Your task to perform on an android device: open sync settings in chrome Image 0: 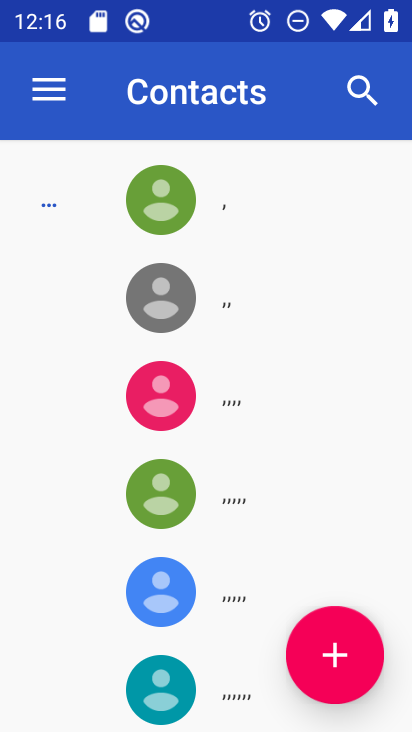
Step 0: press home button
Your task to perform on an android device: open sync settings in chrome Image 1: 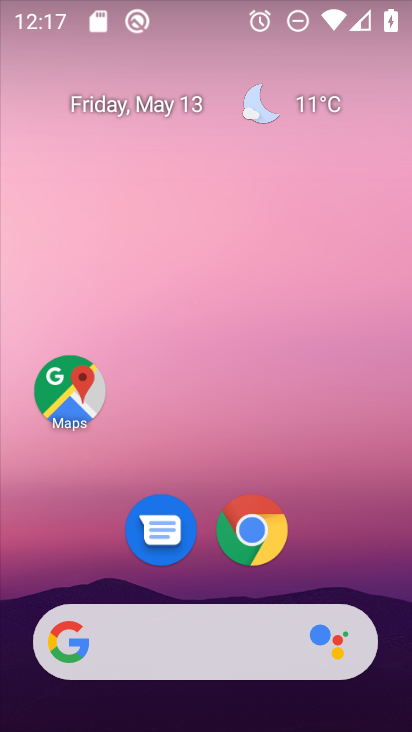
Step 1: click (226, 544)
Your task to perform on an android device: open sync settings in chrome Image 2: 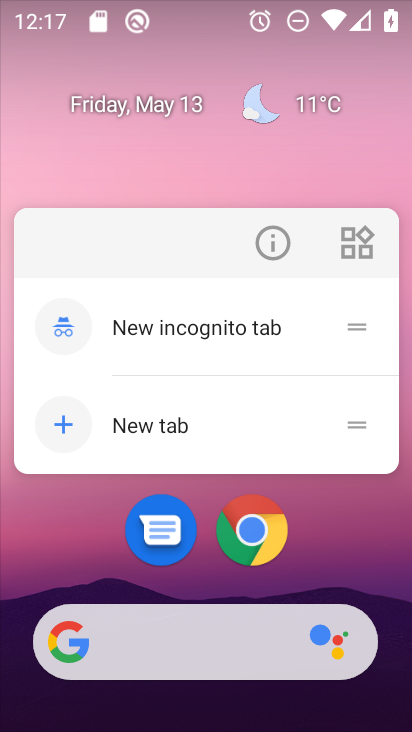
Step 2: click (241, 531)
Your task to perform on an android device: open sync settings in chrome Image 3: 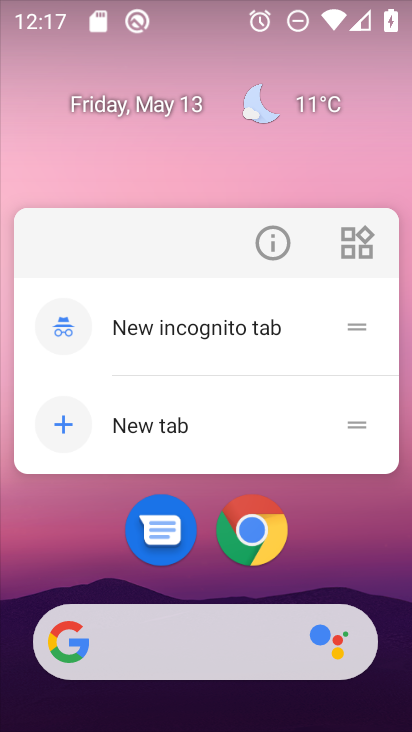
Step 3: click (248, 541)
Your task to perform on an android device: open sync settings in chrome Image 4: 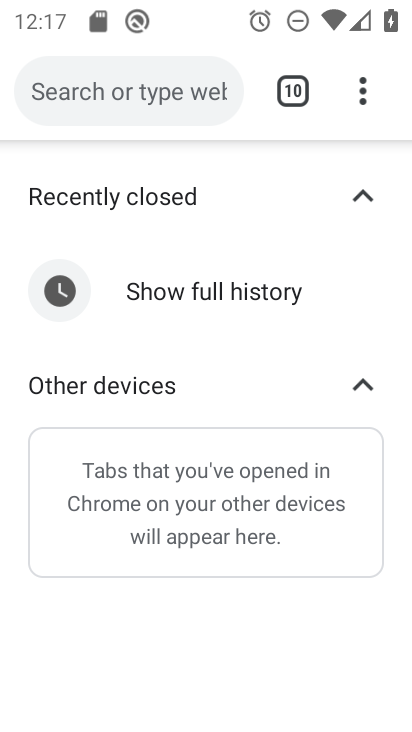
Step 4: drag from (358, 88) to (216, 541)
Your task to perform on an android device: open sync settings in chrome Image 5: 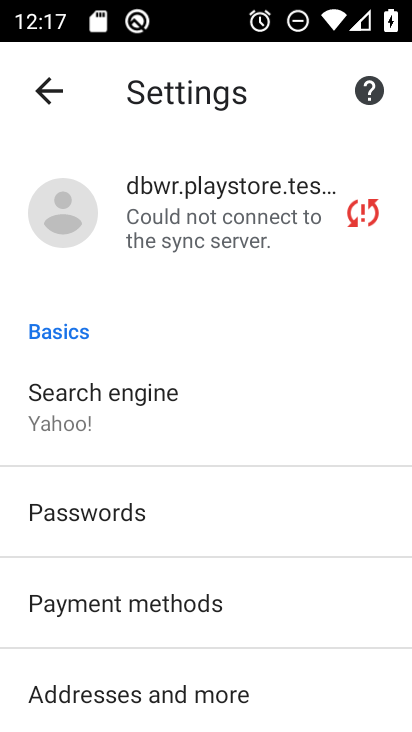
Step 5: click (210, 246)
Your task to perform on an android device: open sync settings in chrome Image 6: 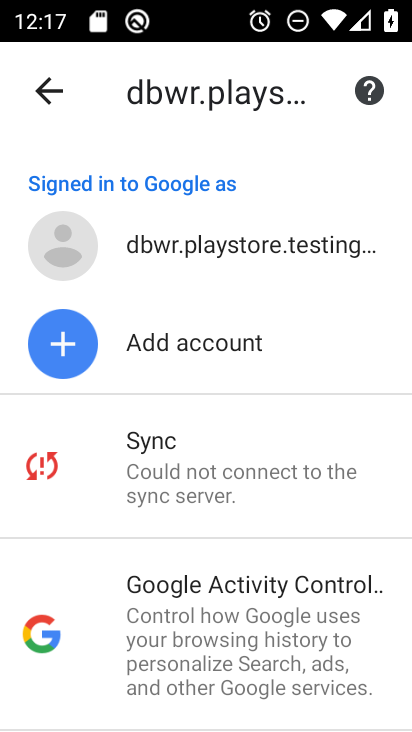
Step 6: click (179, 441)
Your task to perform on an android device: open sync settings in chrome Image 7: 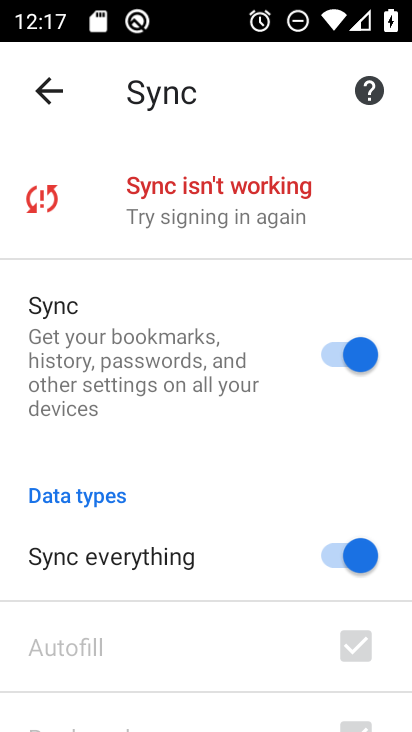
Step 7: task complete